Your task to perform on an android device: turn on notifications settings in the gmail app Image 0: 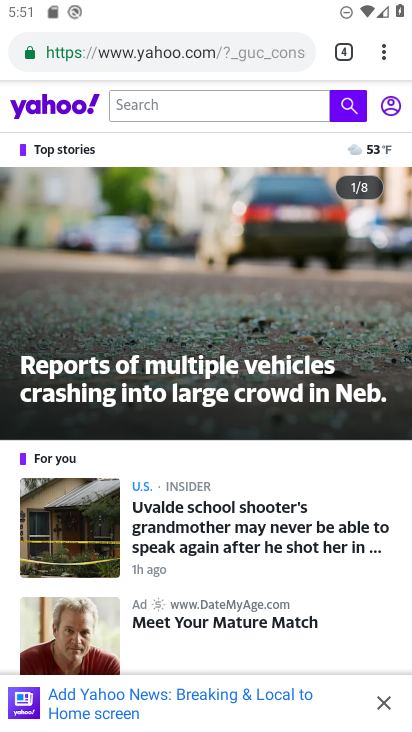
Step 0: press home button
Your task to perform on an android device: turn on notifications settings in the gmail app Image 1: 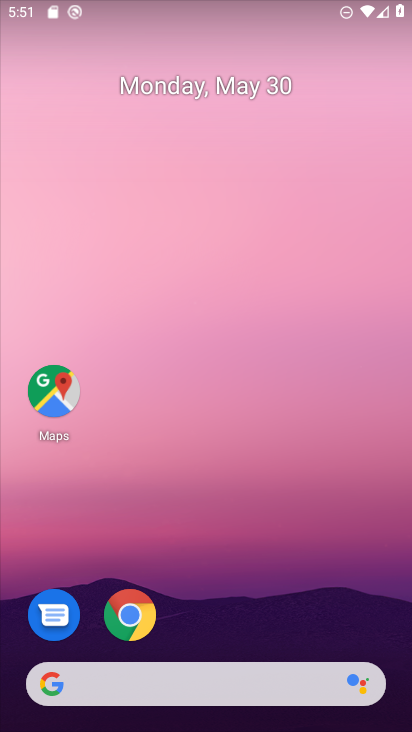
Step 1: drag from (312, 614) to (366, 258)
Your task to perform on an android device: turn on notifications settings in the gmail app Image 2: 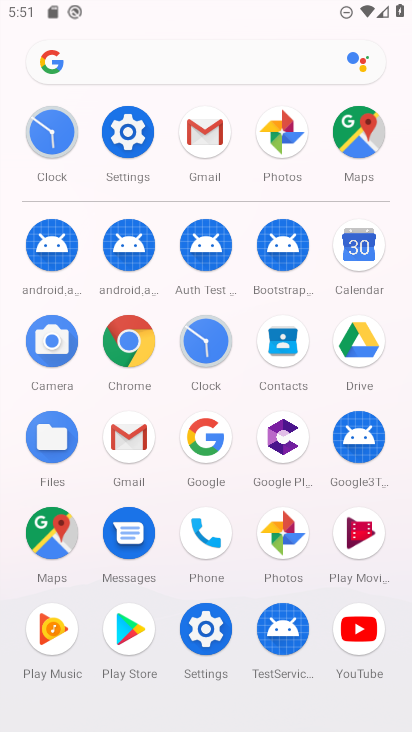
Step 2: click (215, 204)
Your task to perform on an android device: turn on notifications settings in the gmail app Image 3: 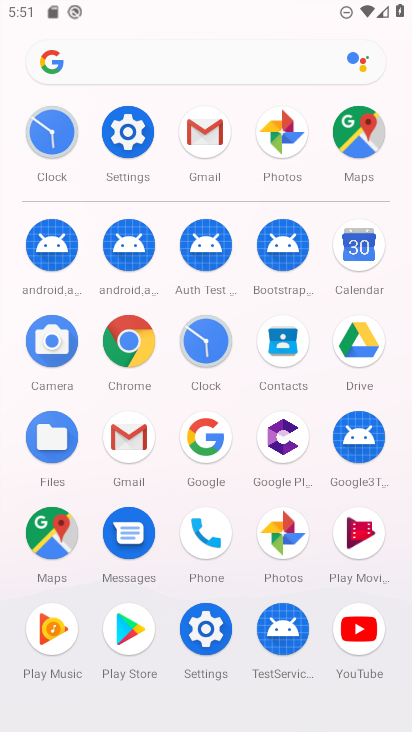
Step 3: click (204, 146)
Your task to perform on an android device: turn on notifications settings in the gmail app Image 4: 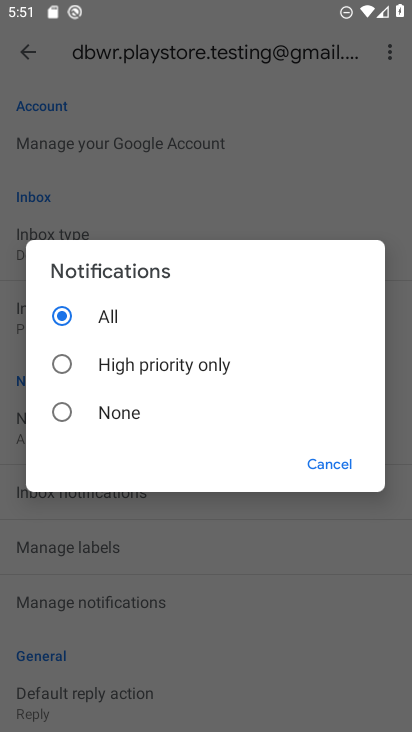
Step 4: task complete